Your task to perform on an android device: toggle translation in the chrome app Image 0: 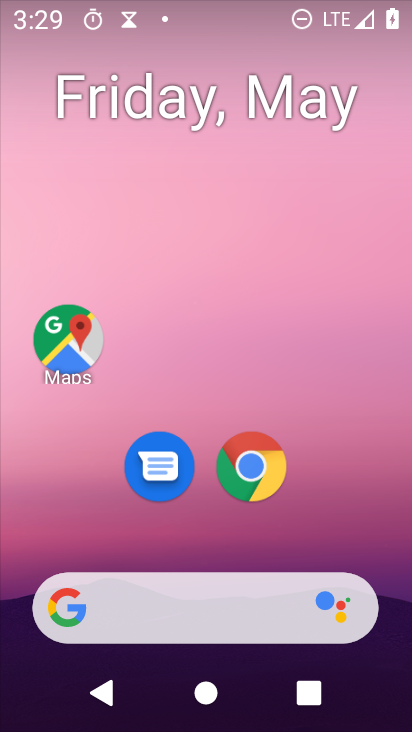
Step 0: drag from (350, 542) to (388, 83)
Your task to perform on an android device: toggle translation in the chrome app Image 1: 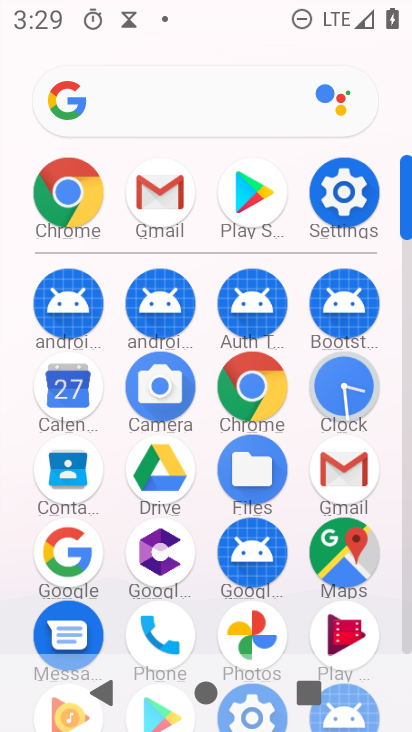
Step 1: click (79, 195)
Your task to perform on an android device: toggle translation in the chrome app Image 2: 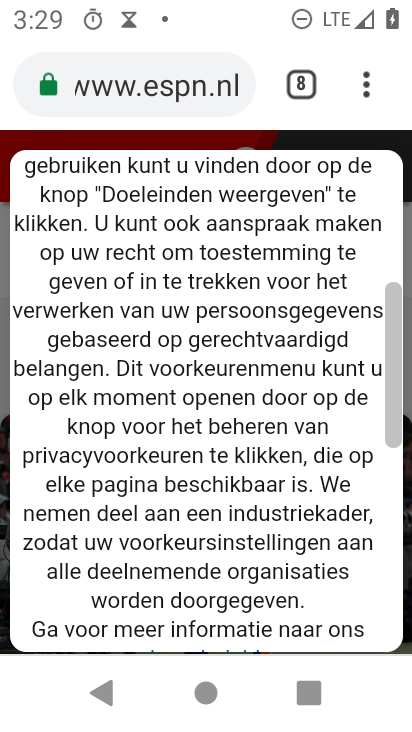
Step 2: drag from (362, 87) to (134, 523)
Your task to perform on an android device: toggle translation in the chrome app Image 3: 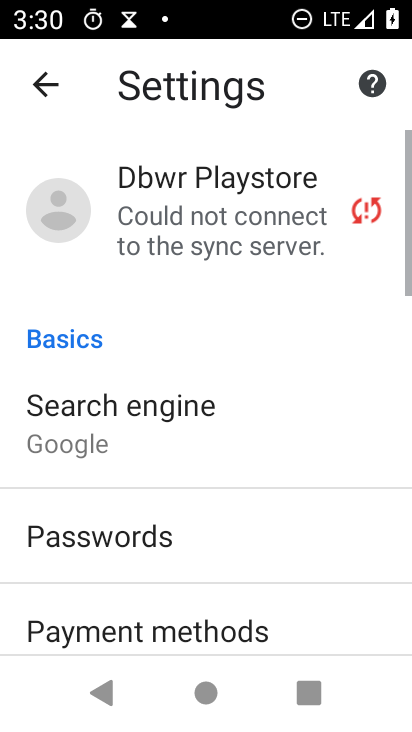
Step 3: drag from (175, 582) to (294, 86)
Your task to perform on an android device: toggle translation in the chrome app Image 4: 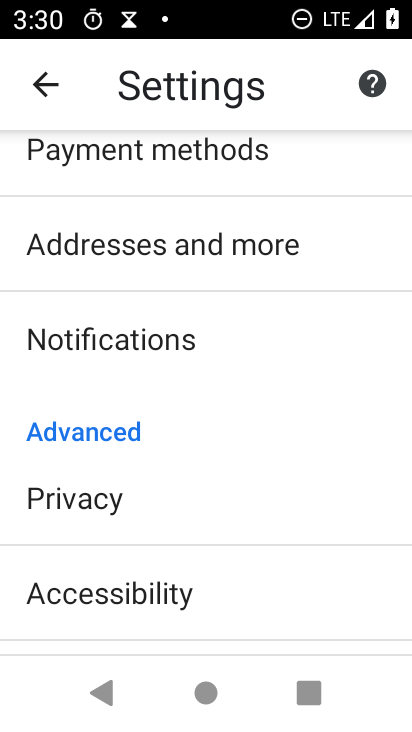
Step 4: drag from (206, 554) to (287, 150)
Your task to perform on an android device: toggle translation in the chrome app Image 5: 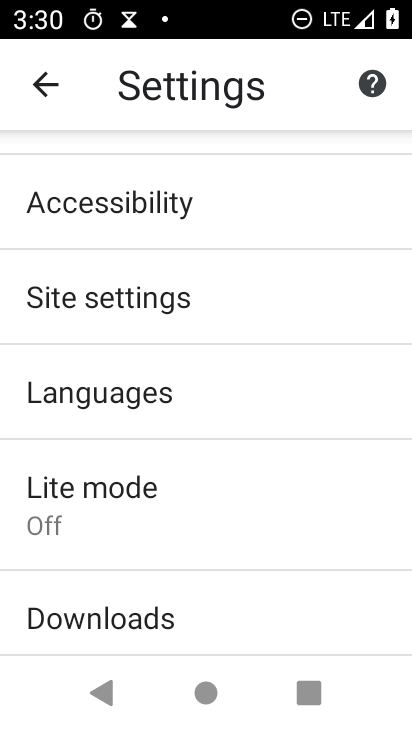
Step 5: drag from (236, 620) to (264, 205)
Your task to perform on an android device: toggle translation in the chrome app Image 6: 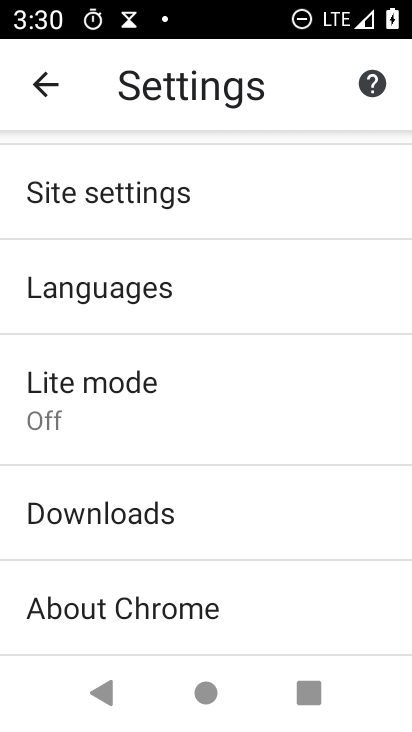
Step 6: drag from (201, 597) to (260, 178)
Your task to perform on an android device: toggle translation in the chrome app Image 7: 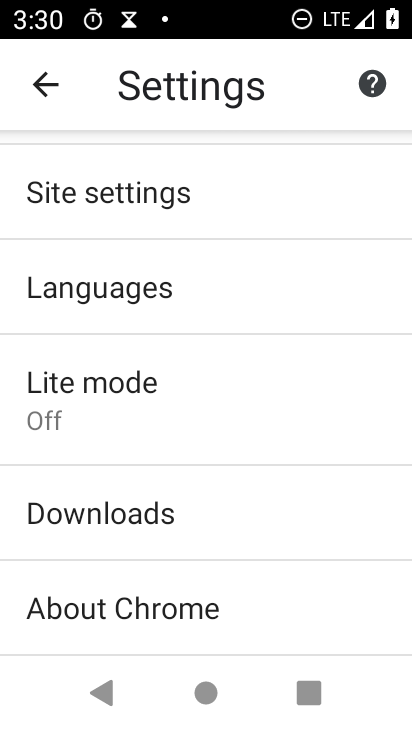
Step 7: click (168, 285)
Your task to perform on an android device: toggle translation in the chrome app Image 8: 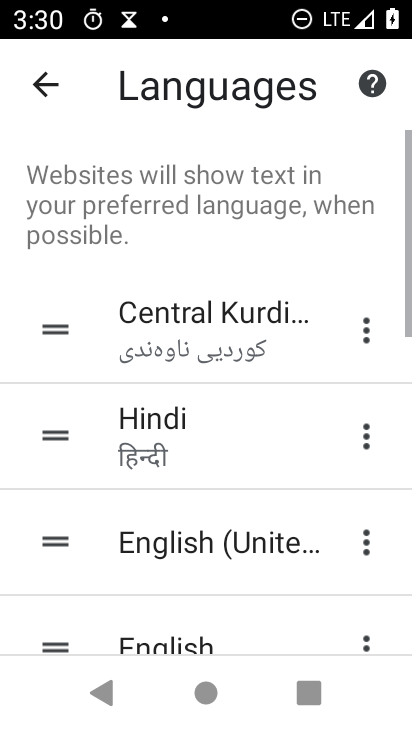
Step 8: drag from (216, 569) to (287, 198)
Your task to perform on an android device: toggle translation in the chrome app Image 9: 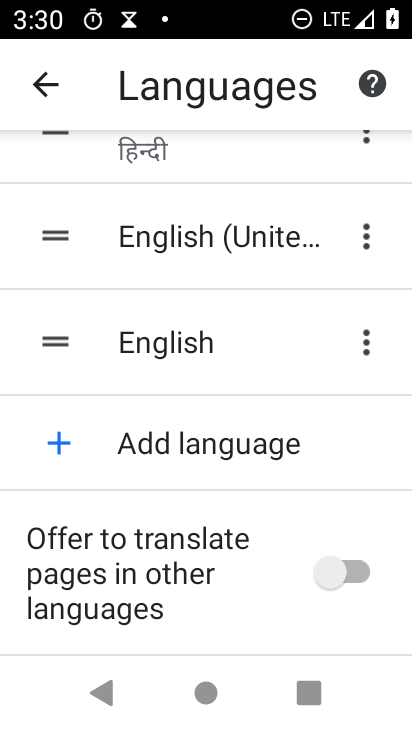
Step 9: drag from (224, 614) to (261, 252)
Your task to perform on an android device: toggle translation in the chrome app Image 10: 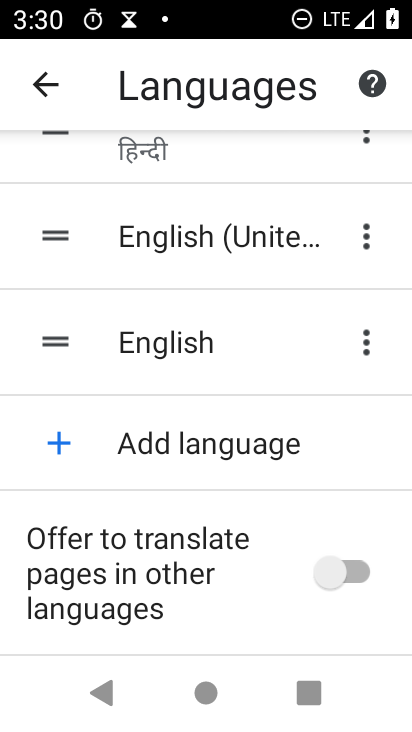
Step 10: click (342, 574)
Your task to perform on an android device: toggle translation in the chrome app Image 11: 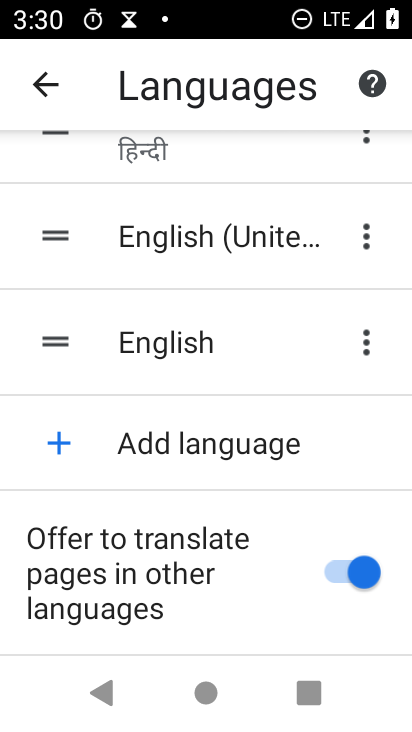
Step 11: task complete